Your task to perform on an android device: Show me productivity apps on the Play Store Image 0: 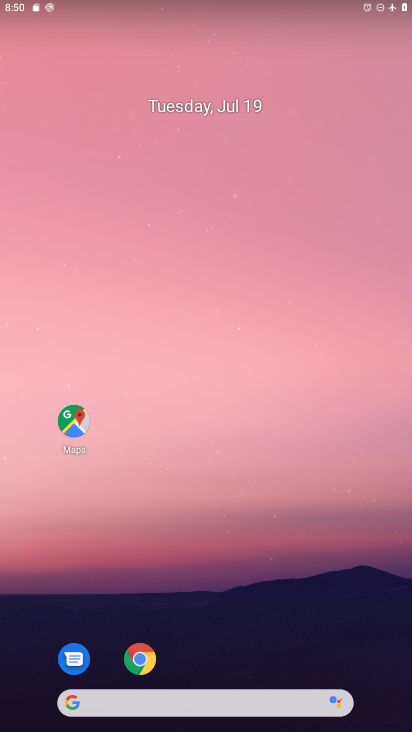
Step 0: drag from (214, 632) to (238, 227)
Your task to perform on an android device: Show me productivity apps on the Play Store Image 1: 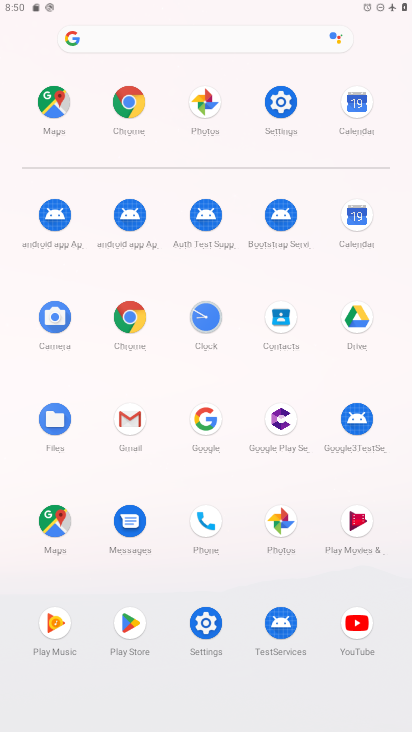
Step 1: click (130, 622)
Your task to perform on an android device: Show me productivity apps on the Play Store Image 2: 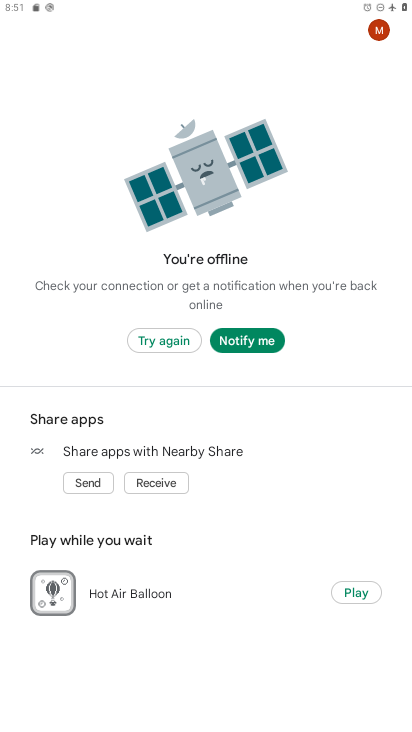
Step 2: task complete